Your task to perform on an android device: toggle airplane mode Image 0: 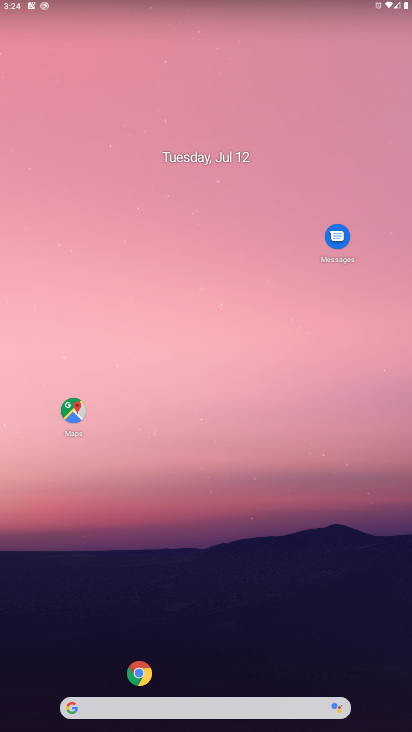
Step 0: drag from (134, 293) to (152, 234)
Your task to perform on an android device: toggle airplane mode Image 1: 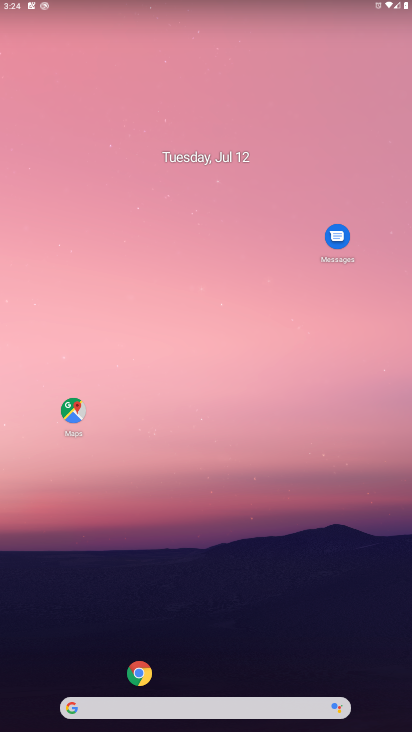
Step 1: drag from (67, 663) to (269, 15)
Your task to perform on an android device: toggle airplane mode Image 2: 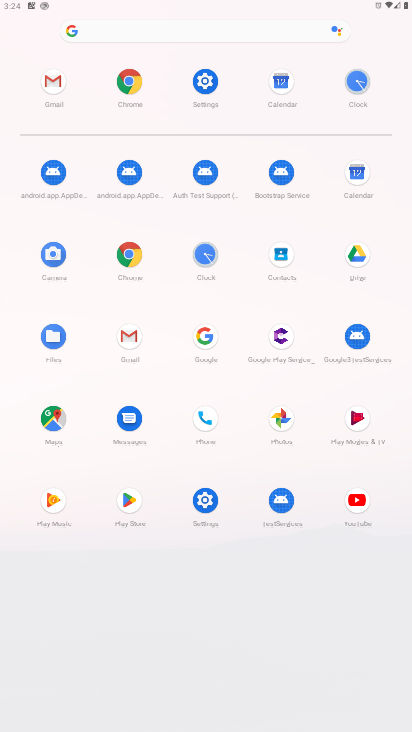
Step 2: click (207, 517)
Your task to perform on an android device: toggle airplane mode Image 3: 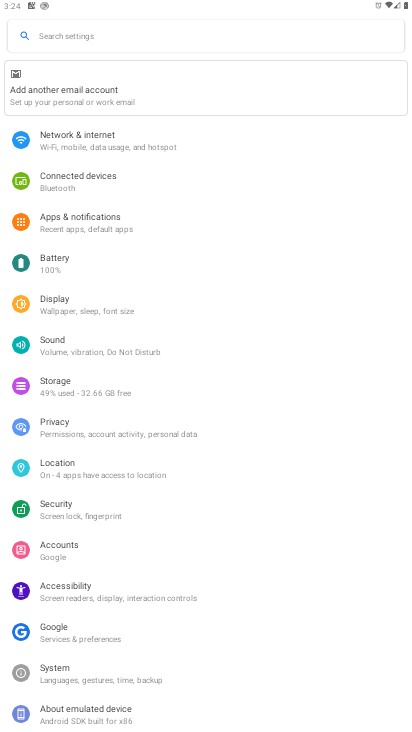
Step 3: click (95, 131)
Your task to perform on an android device: toggle airplane mode Image 4: 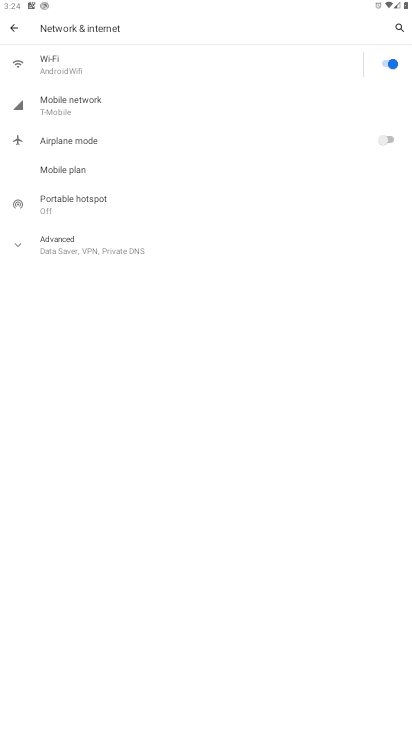
Step 4: click (382, 136)
Your task to perform on an android device: toggle airplane mode Image 5: 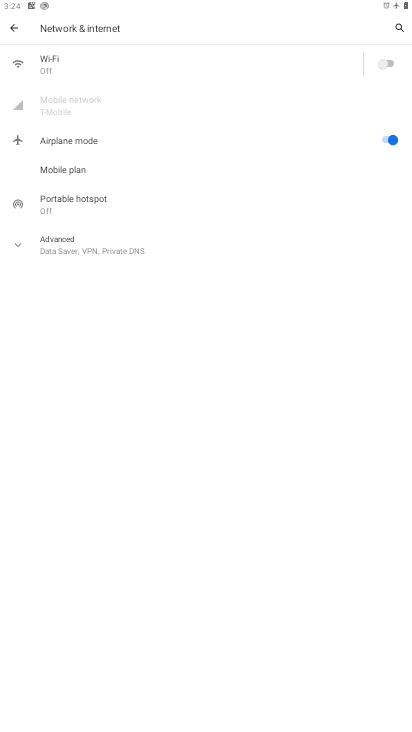
Step 5: task complete